Your task to perform on an android device: read, delete, or share a saved page in the chrome app Image 0: 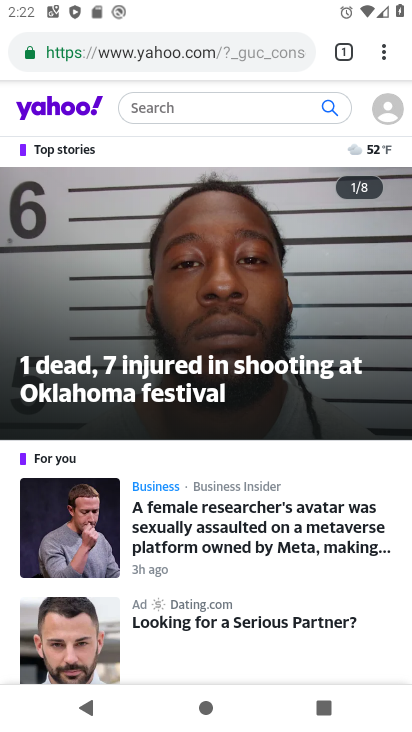
Step 0: click (384, 54)
Your task to perform on an android device: read, delete, or share a saved page in the chrome app Image 1: 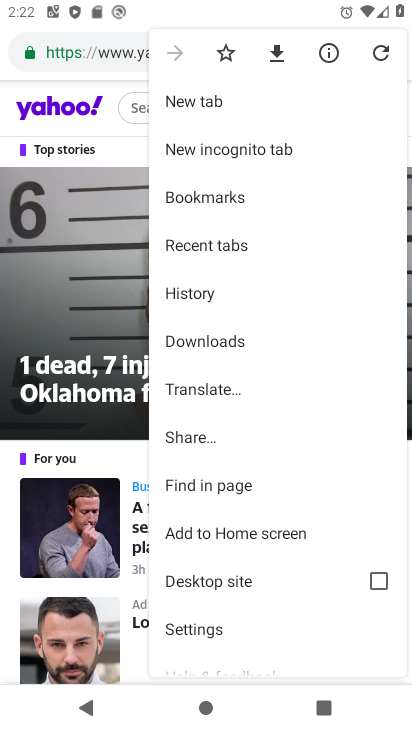
Step 1: click (194, 338)
Your task to perform on an android device: read, delete, or share a saved page in the chrome app Image 2: 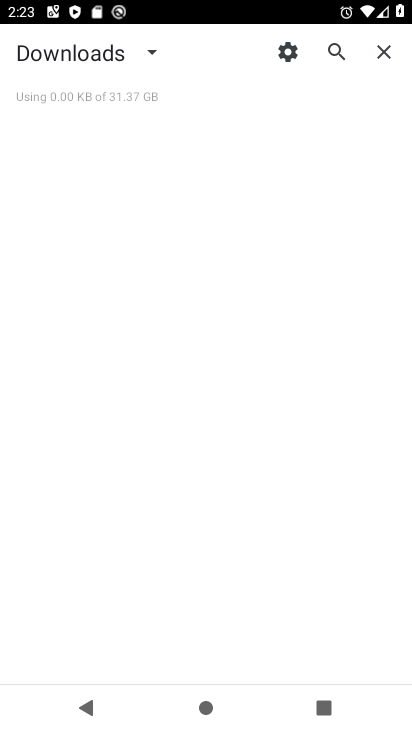
Step 2: task complete